Your task to perform on an android device: Open Google Chrome and open the bookmarks view Image 0: 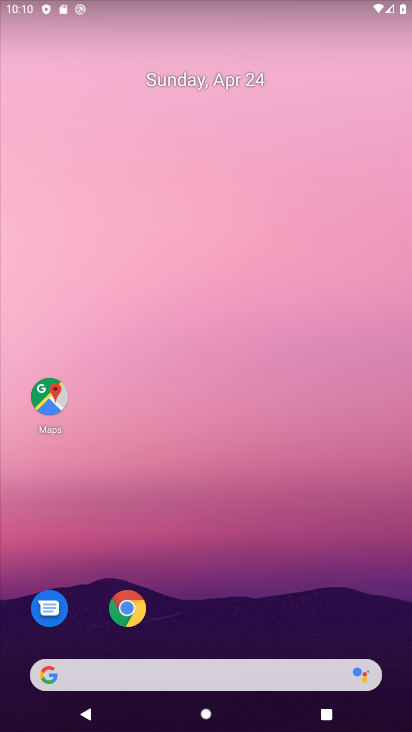
Step 0: drag from (218, 577) to (177, 20)
Your task to perform on an android device: Open Google Chrome and open the bookmarks view Image 1: 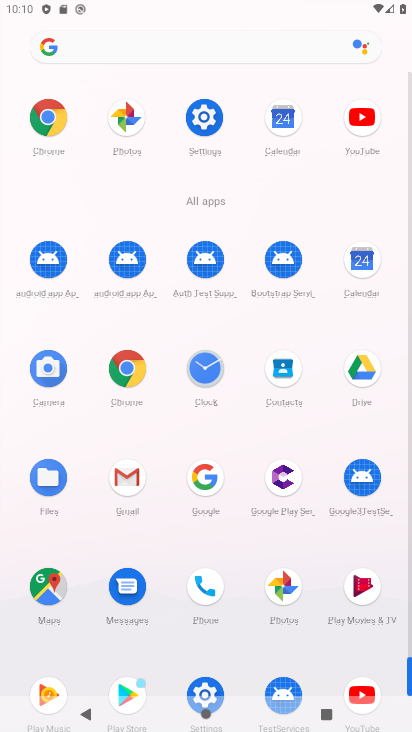
Step 1: drag from (16, 568) to (1, 258)
Your task to perform on an android device: Open Google Chrome and open the bookmarks view Image 2: 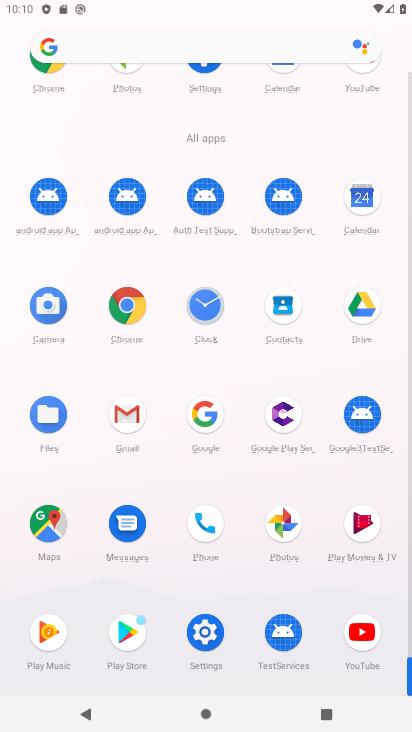
Step 2: click (124, 305)
Your task to perform on an android device: Open Google Chrome and open the bookmarks view Image 3: 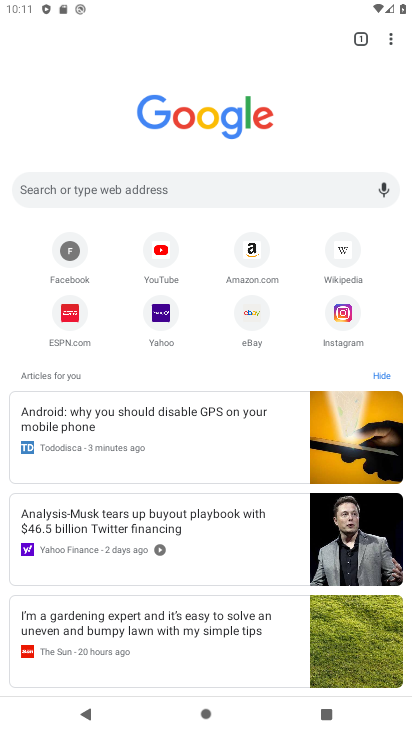
Step 3: drag from (393, 35) to (257, 331)
Your task to perform on an android device: Open Google Chrome and open the bookmarks view Image 4: 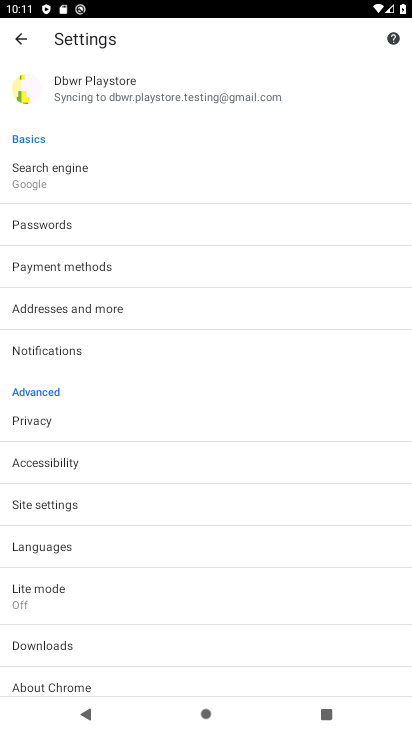
Step 4: click (30, 44)
Your task to perform on an android device: Open Google Chrome and open the bookmarks view Image 5: 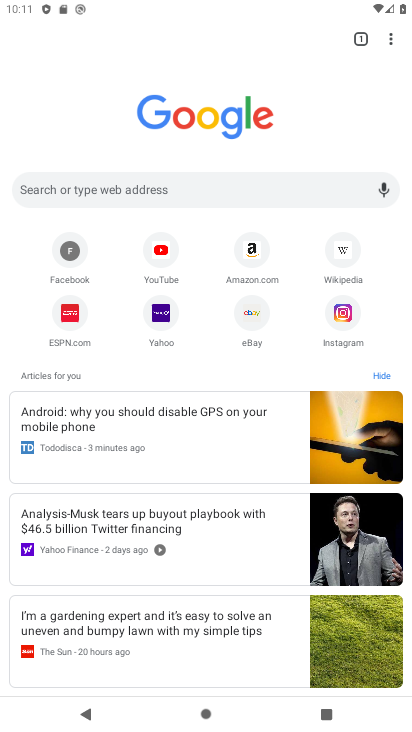
Step 5: task complete